Your task to perform on an android device: What's on my calendar today? Image 0: 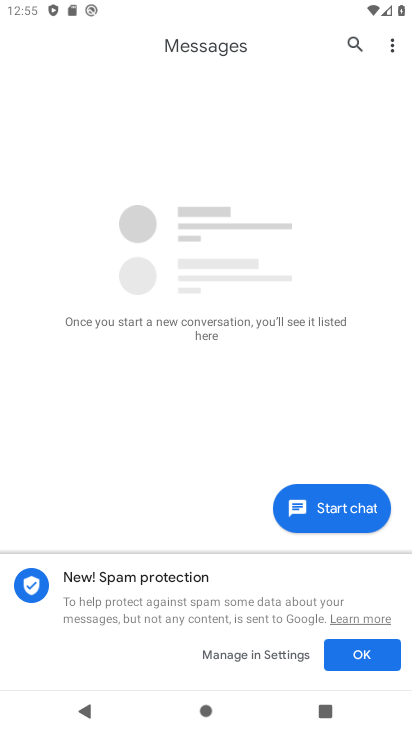
Step 0: press home button
Your task to perform on an android device: What's on my calendar today? Image 1: 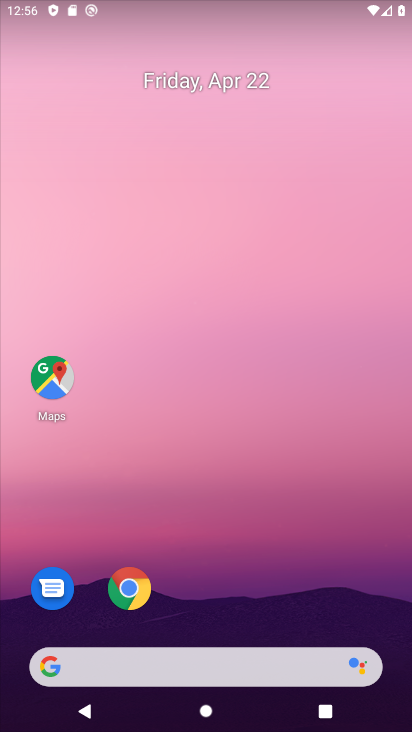
Step 1: drag from (376, 605) to (400, 156)
Your task to perform on an android device: What's on my calendar today? Image 2: 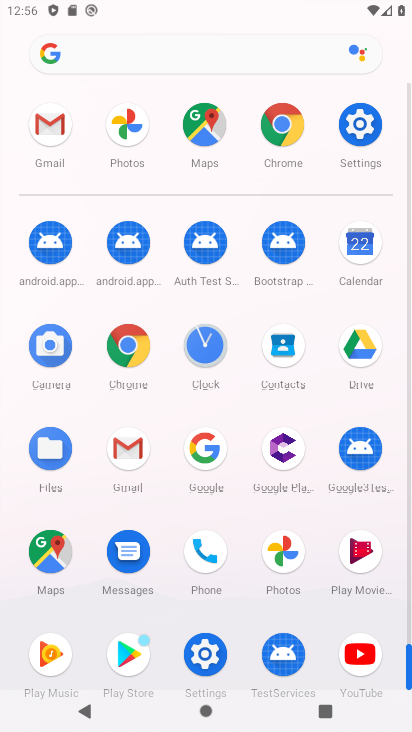
Step 2: drag from (284, 541) to (280, 228)
Your task to perform on an android device: What's on my calendar today? Image 3: 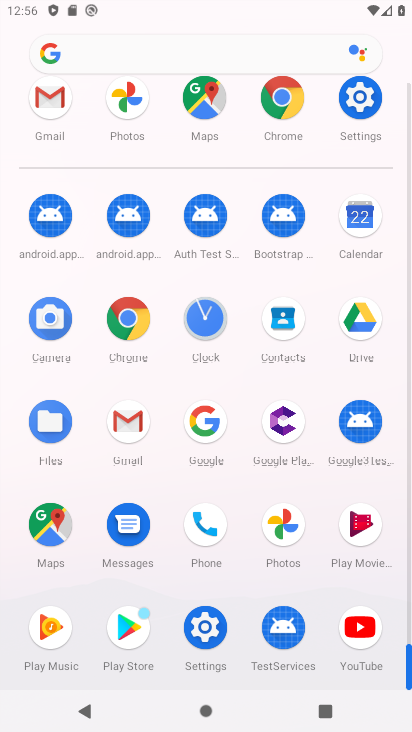
Step 3: click (356, 223)
Your task to perform on an android device: What's on my calendar today? Image 4: 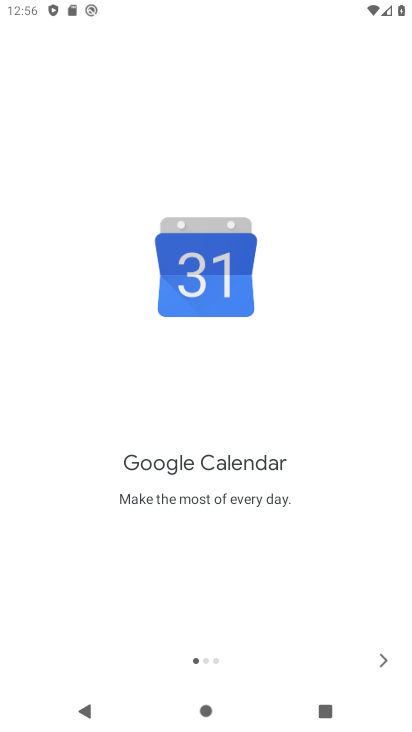
Step 4: click (382, 661)
Your task to perform on an android device: What's on my calendar today? Image 5: 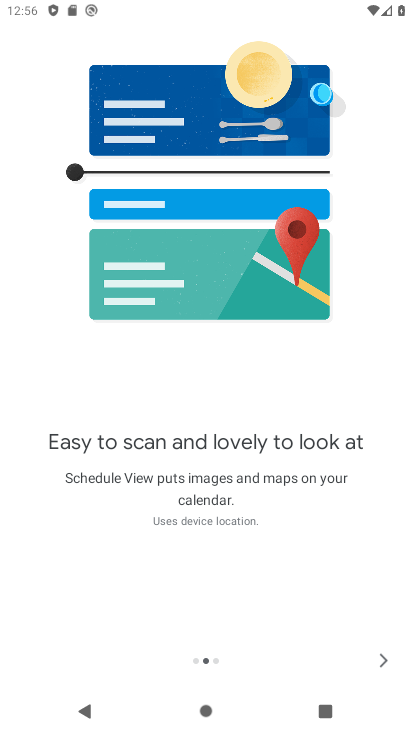
Step 5: click (381, 659)
Your task to perform on an android device: What's on my calendar today? Image 6: 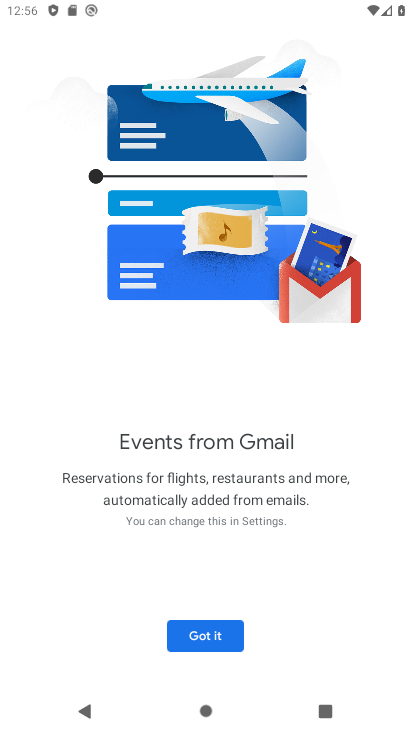
Step 6: click (226, 635)
Your task to perform on an android device: What's on my calendar today? Image 7: 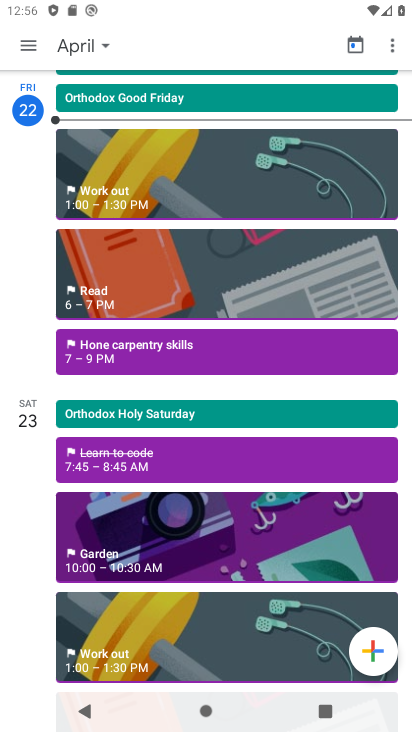
Step 7: task complete